Your task to perform on an android device: turn off javascript in the chrome app Image 0: 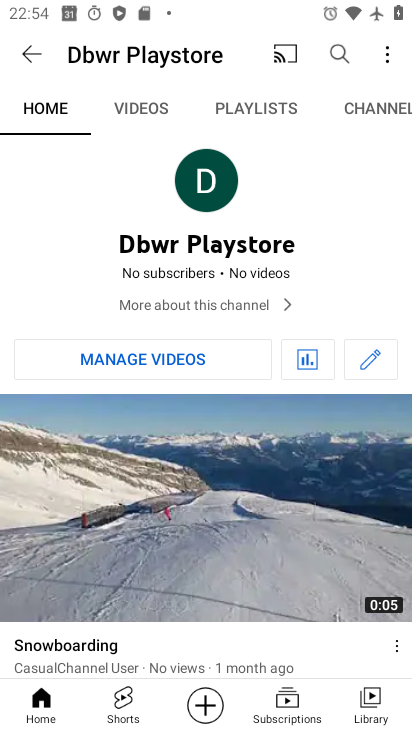
Step 0: press home button
Your task to perform on an android device: turn off javascript in the chrome app Image 1: 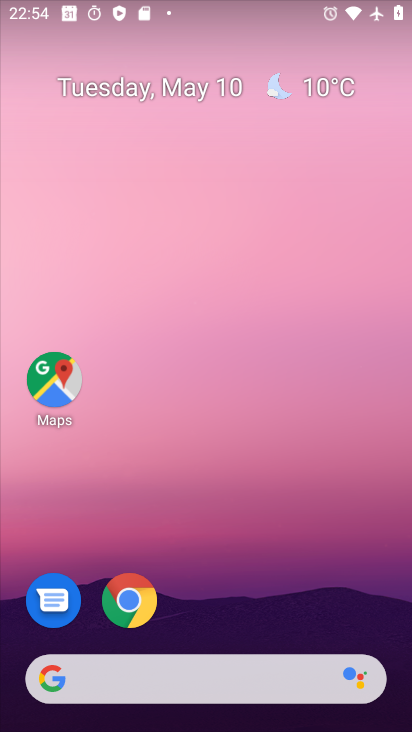
Step 1: drag from (225, 591) to (265, 193)
Your task to perform on an android device: turn off javascript in the chrome app Image 2: 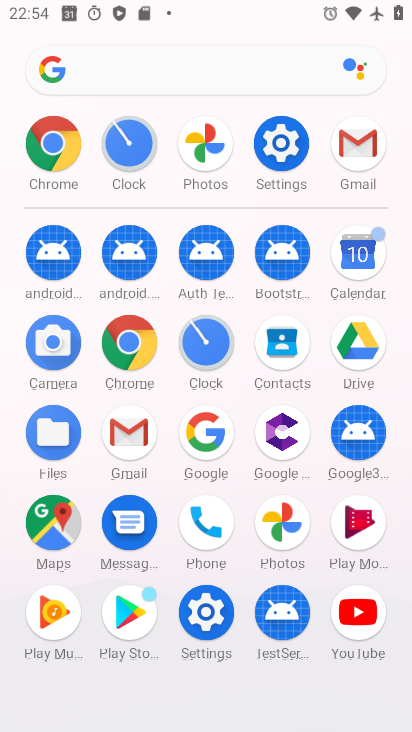
Step 2: click (40, 156)
Your task to perform on an android device: turn off javascript in the chrome app Image 3: 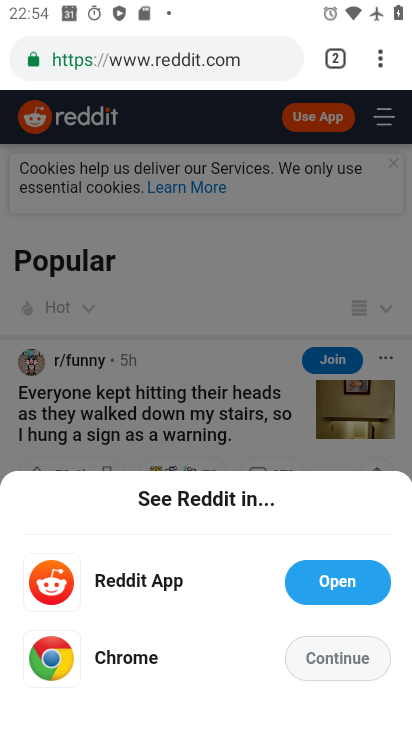
Step 3: drag from (377, 60) to (188, 630)
Your task to perform on an android device: turn off javascript in the chrome app Image 4: 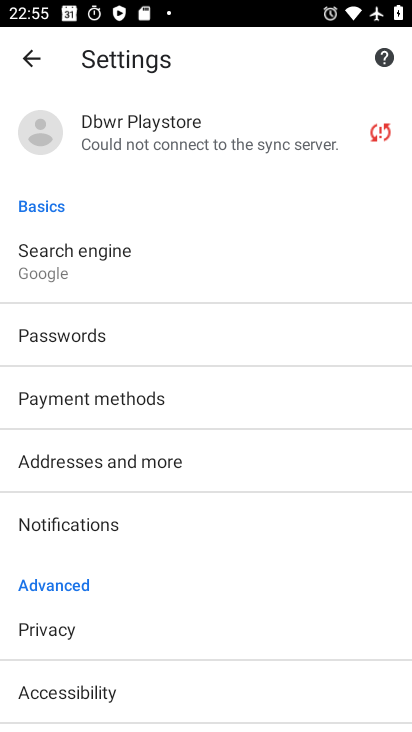
Step 4: drag from (173, 640) to (253, 290)
Your task to perform on an android device: turn off javascript in the chrome app Image 5: 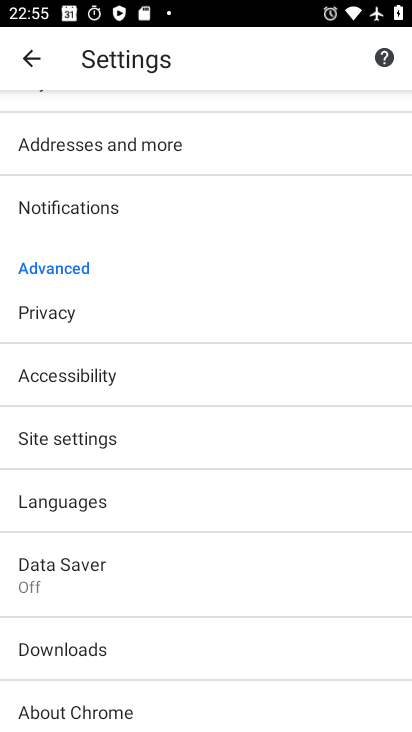
Step 5: click (108, 452)
Your task to perform on an android device: turn off javascript in the chrome app Image 6: 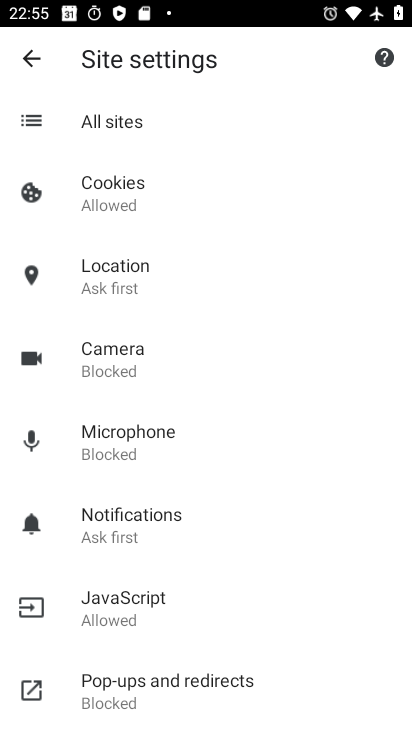
Step 6: click (109, 593)
Your task to perform on an android device: turn off javascript in the chrome app Image 7: 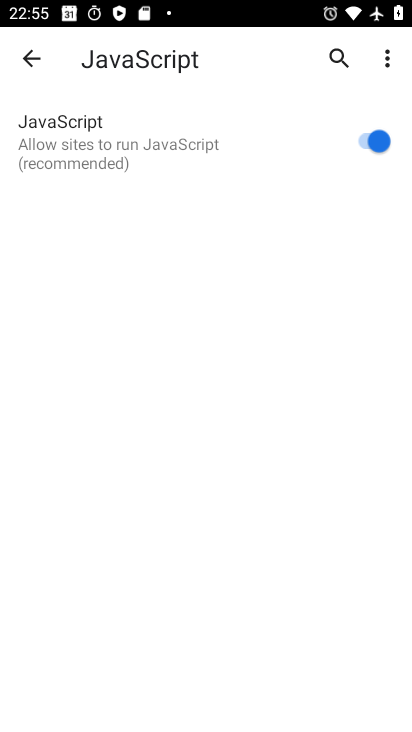
Step 7: task complete